Your task to perform on an android device: change keyboard looks Image 0: 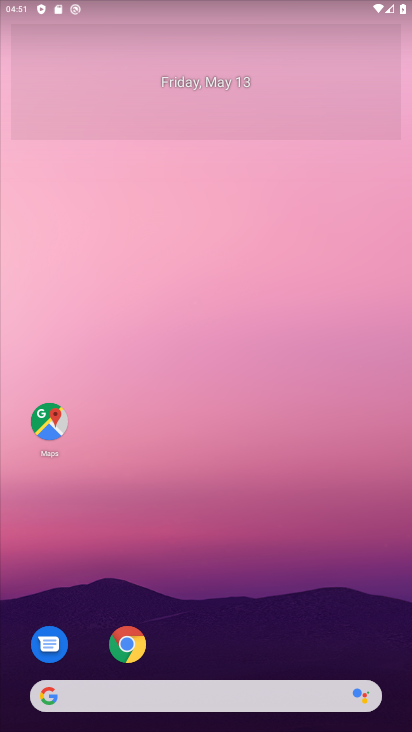
Step 0: drag from (224, 569) to (299, 84)
Your task to perform on an android device: change keyboard looks Image 1: 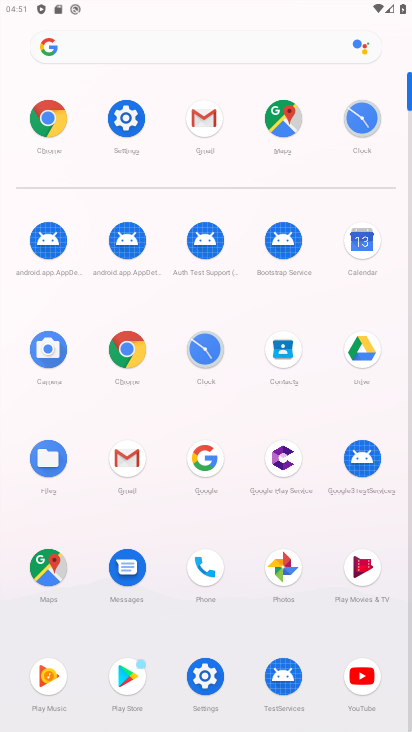
Step 1: click (127, 124)
Your task to perform on an android device: change keyboard looks Image 2: 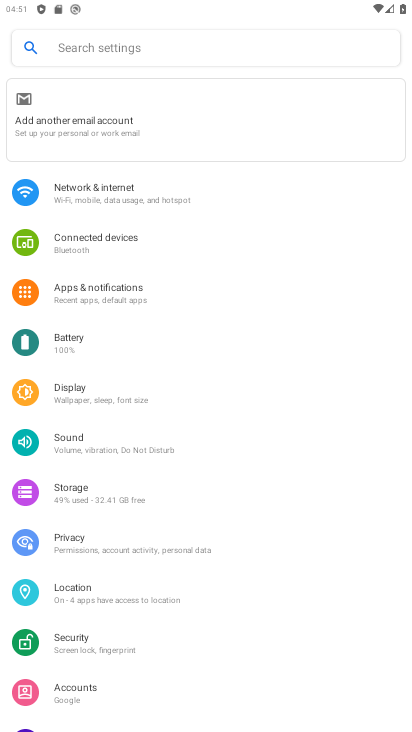
Step 2: drag from (101, 680) to (209, 120)
Your task to perform on an android device: change keyboard looks Image 3: 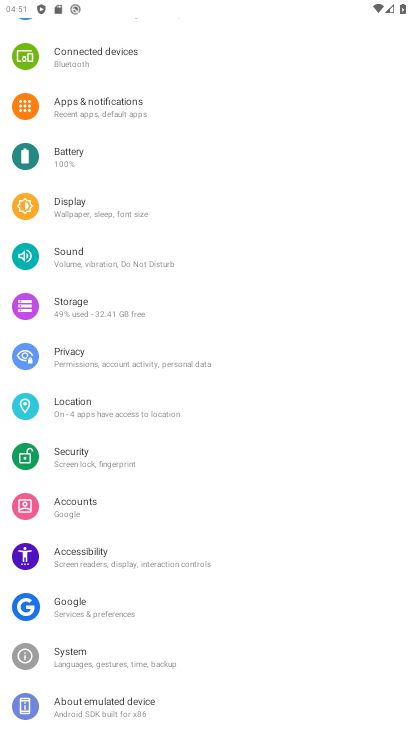
Step 3: click (90, 662)
Your task to perform on an android device: change keyboard looks Image 4: 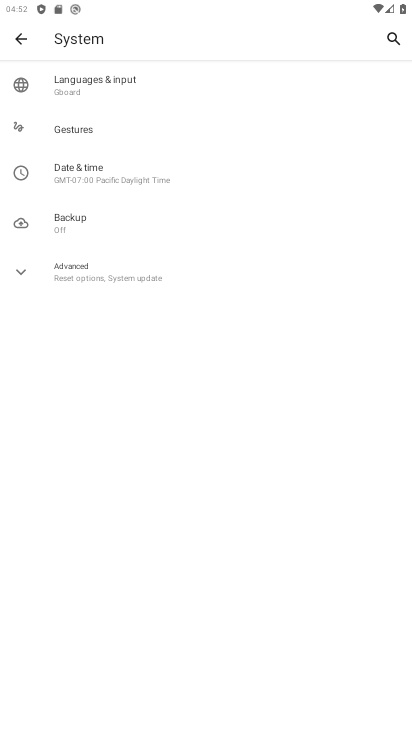
Step 4: click (74, 91)
Your task to perform on an android device: change keyboard looks Image 5: 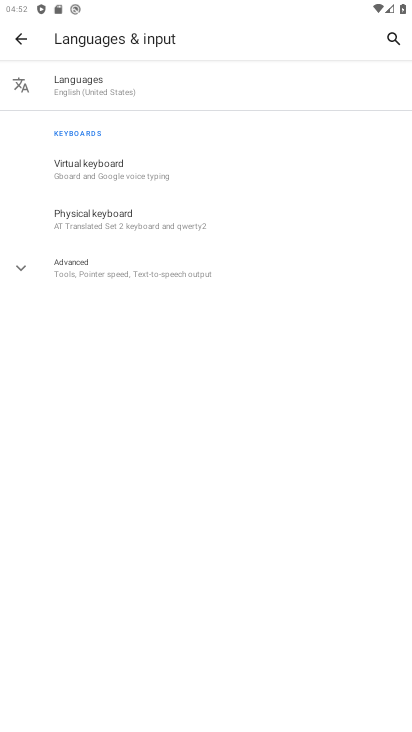
Step 5: click (82, 160)
Your task to perform on an android device: change keyboard looks Image 6: 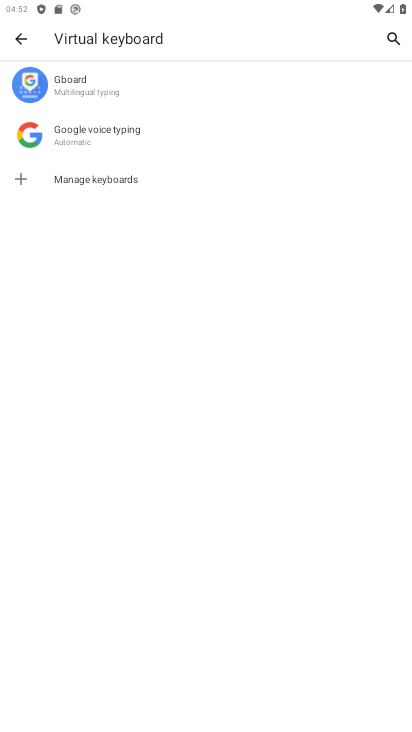
Step 6: click (104, 70)
Your task to perform on an android device: change keyboard looks Image 7: 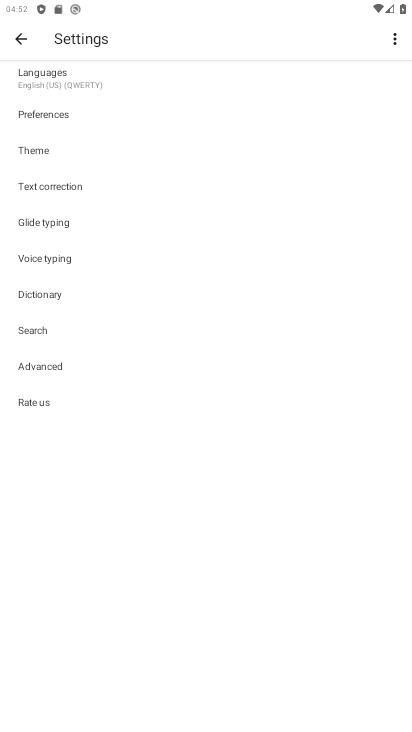
Step 7: click (31, 147)
Your task to perform on an android device: change keyboard looks Image 8: 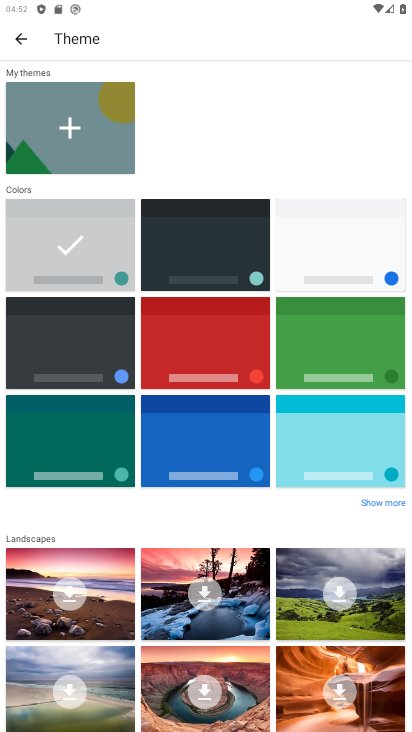
Step 8: click (323, 368)
Your task to perform on an android device: change keyboard looks Image 9: 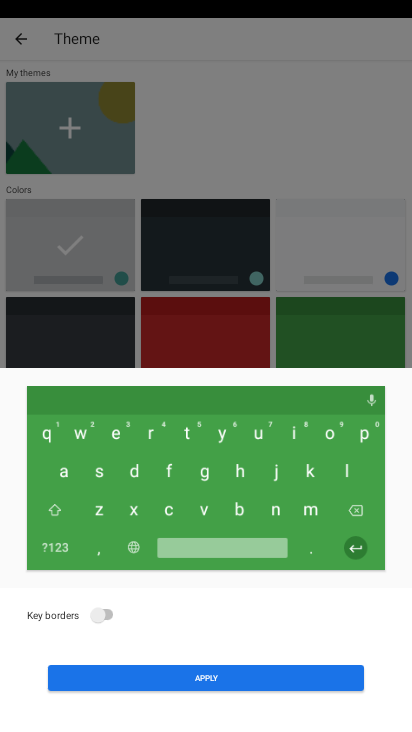
Step 9: click (169, 681)
Your task to perform on an android device: change keyboard looks Image 10: 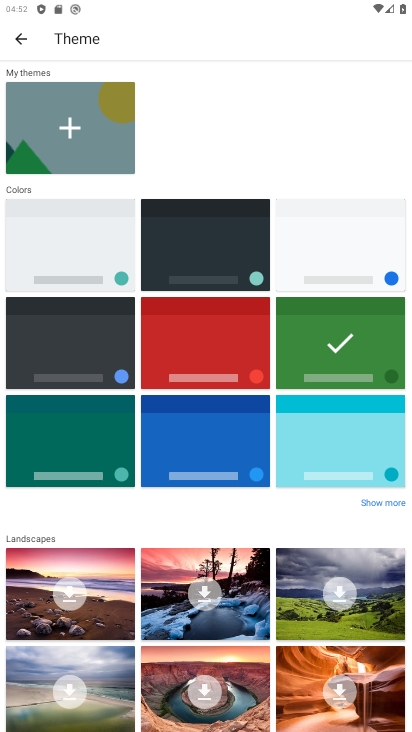
Step 10: task complete